Your task to perform on an android device: Open Google Chrome and open the bookmarks view Image 0: 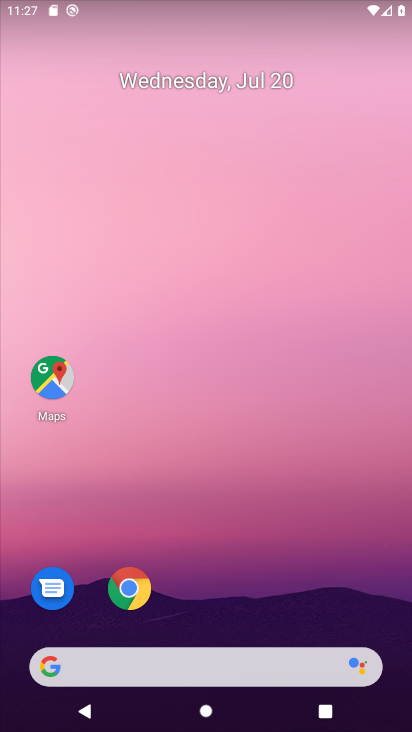
Step 0: press home button
Your task to perform on an android device: Open Google Chrome and open the bookmarks view Image 1: 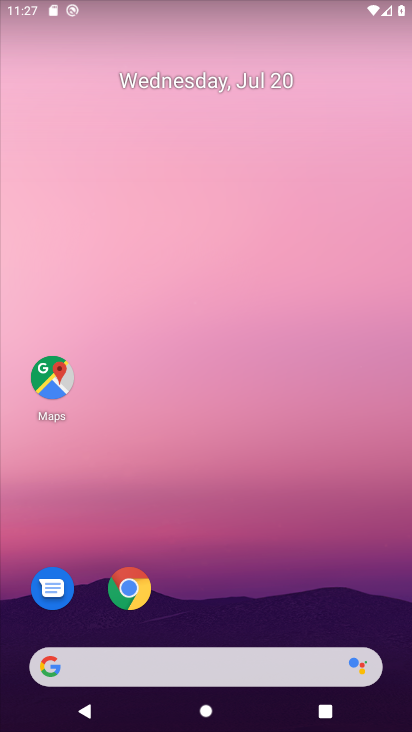
Step 1: click (124, 583)
Your task to perform on an android device: Open Google Chrome and open the bookmarks view Image 2: 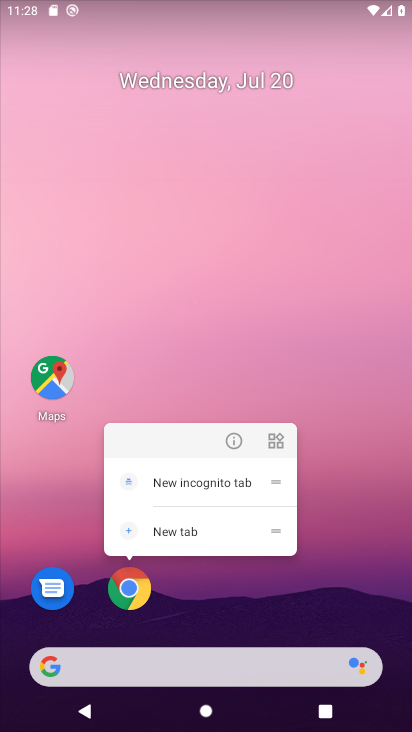
Step 2: click (124, 582)
Your task to perform on an android device: Open Google Chrome and open the bookmarks view Image 3: 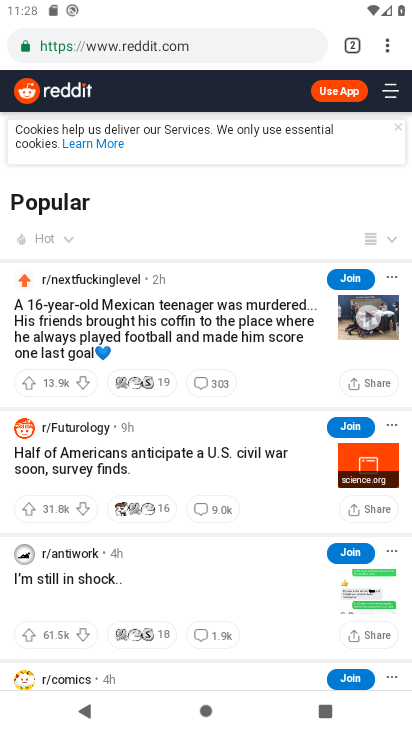
Step 3: click (386, 46)
Your task to perform on an android device: Open Google Chrome and open the bookmarks view Image 4: 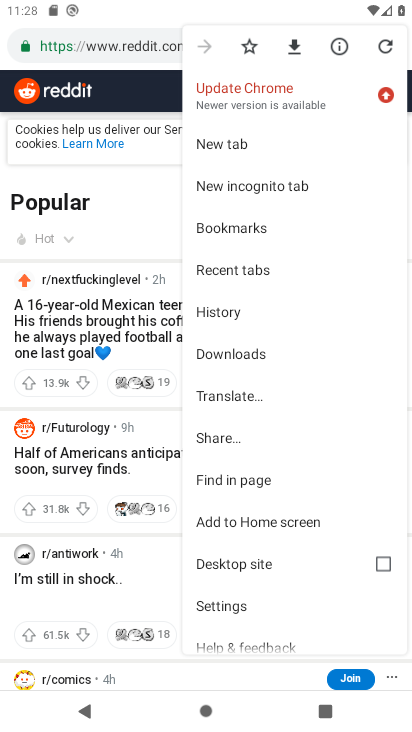
Step 4: click (273, 223)
Your task to perform on an android device: Open Google Chrome and open the bookmarks view Image 5: 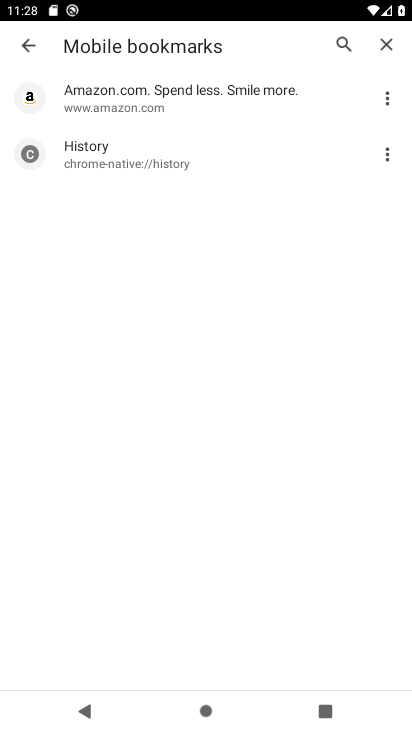
Step 5: task complete